Your task to perform on an android device: turn on the 24-hour format for clock Image 0: 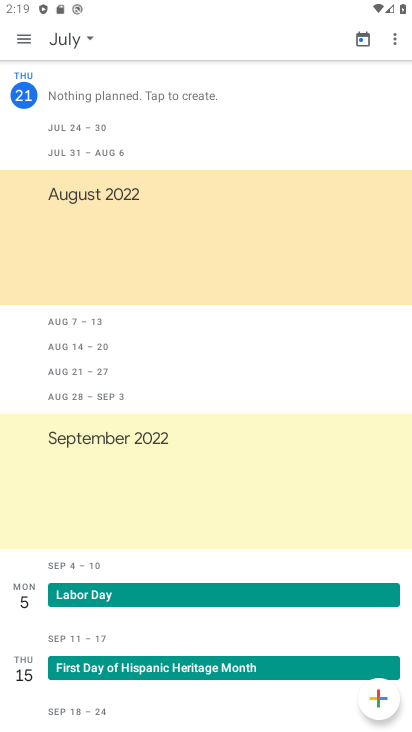
Step 0: press home button
Your task to perform on an android device: turn on the 24-hour format for clock Image 1: 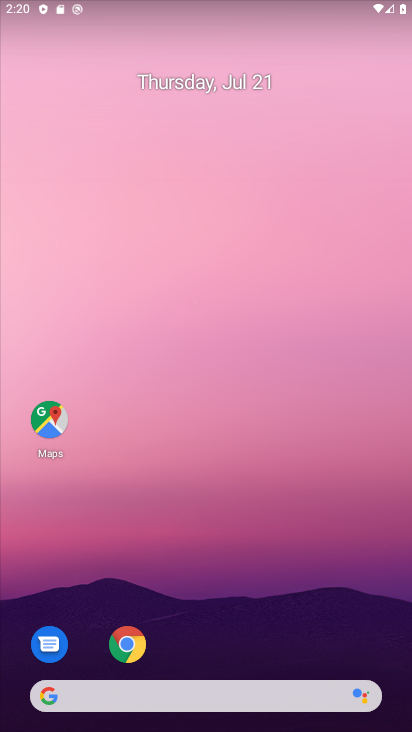
Step 1: drag from (254, 676) to (251, 240)
Your task to perform on an android device: turn on the 24-hour format for clock Image 2: 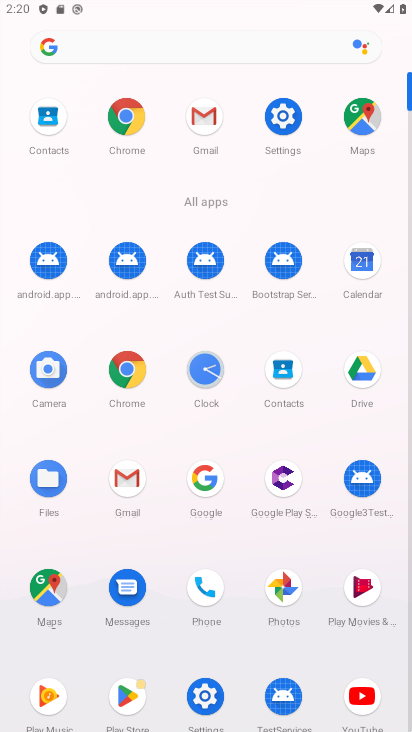
Step 2: click (199, 375)
Your task to perform on an android device: turn on the 24-hour format for clock Image 3: 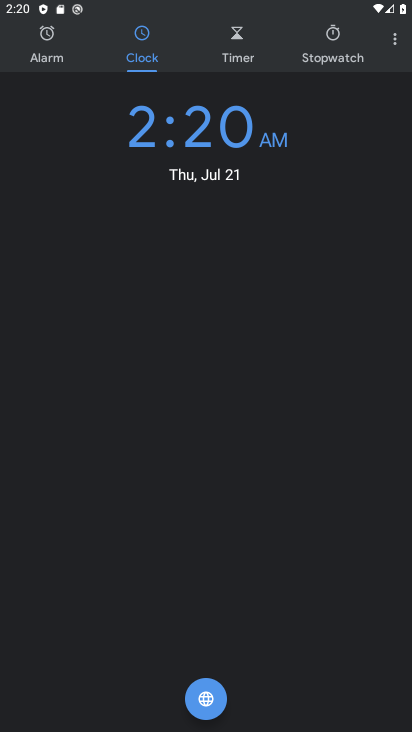
Step 3: drag from (385, 32) to (320, 144)
Your task to perform on an android device: turn on the 24-hour format for clock Image 4: 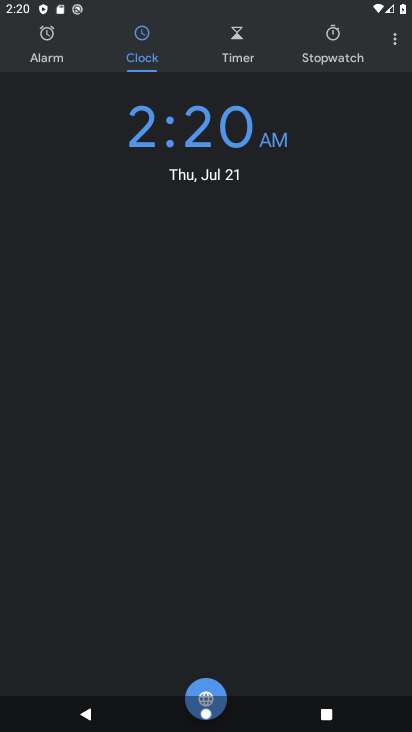
Step 4: click (316, 84)
Your task to perform on an android device: turn on the 24-hour format for clock Image 5: 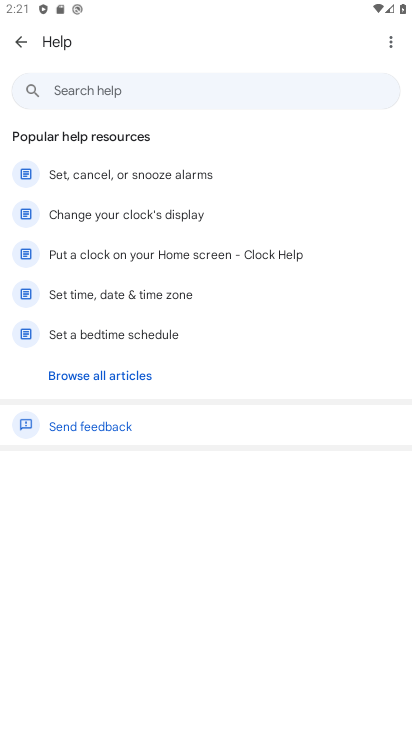
Step 5: press home button
Your task to perform on an android device: turn on the 24-hour format for clock Image 6: 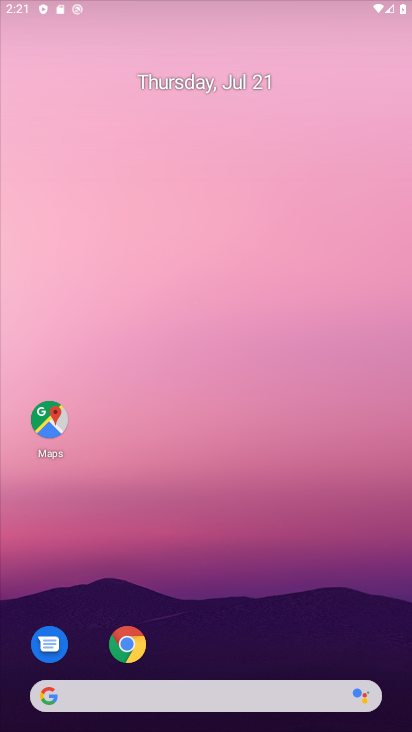
Step 6: drag from (221, 568) to (273, 33)
Your task to perform on an android device: turn on the 24-hour format for clock Image 7: 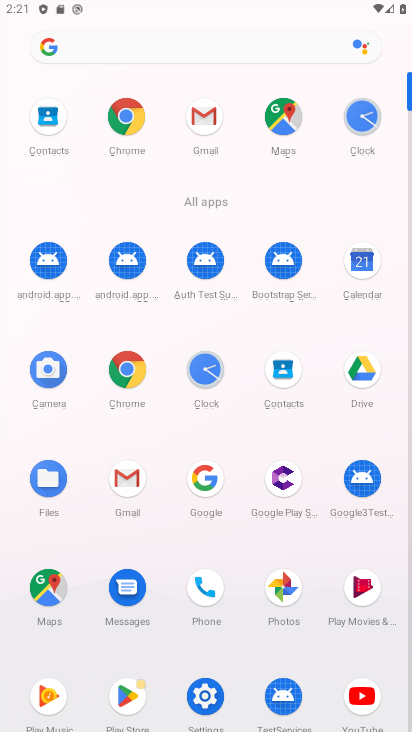
Step 7: click (202, 370)
Your task to perform on an android device: turn on the 24-hour format for clock Image 8: 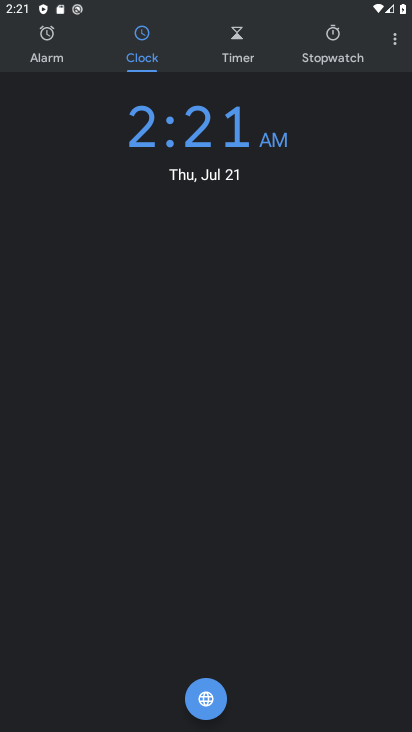
Step 8: click (399, 36)
Your task to perform on an android device: turn on the 24-hour format for clock Image 9: 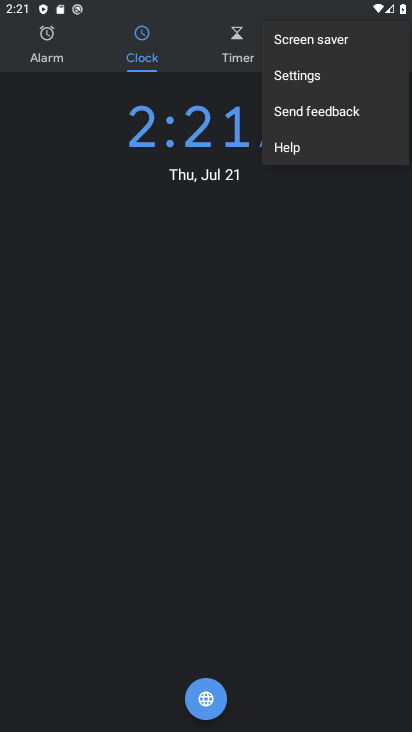
Step 9: click (313, 77)
Your task to perform on an android device: turn on the 24-hour format for clock Image 10: 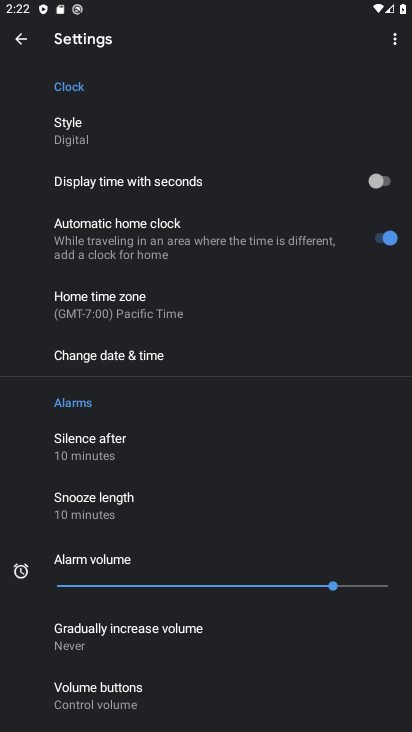
Step 10: click (139, 349)
Your task to perform on an android device: turn on the 24-hour format for clock Image 11: 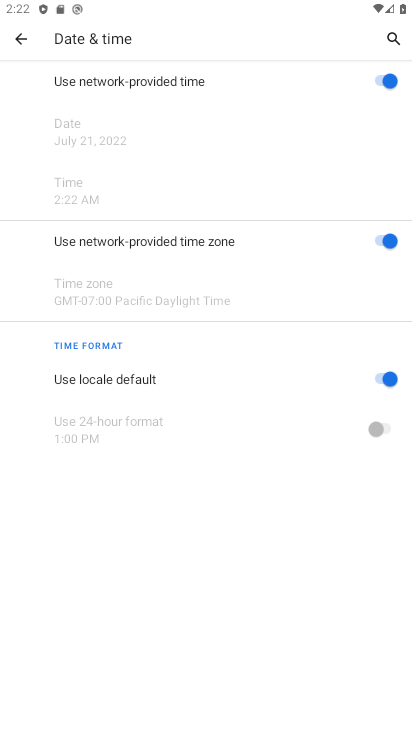
Step 11: click (393, 373)
Your task to perform on an android device: turn on the 24-hour format for clock Image 12: 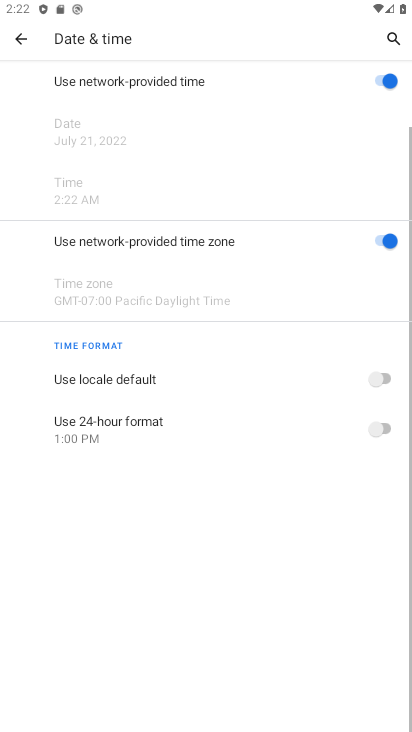
Step 12: click (382, 424)
Your task to perform on an android device: turn on the 24-hour format for clock Image 13: 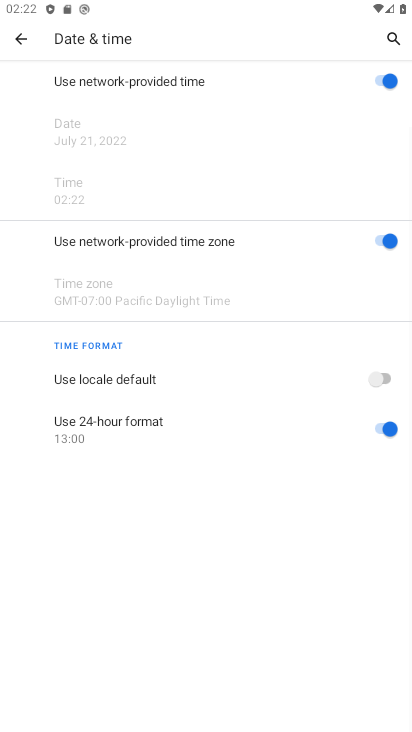
Step 13: task complete